Your task to perform on an android device: Open location settings Image 0: 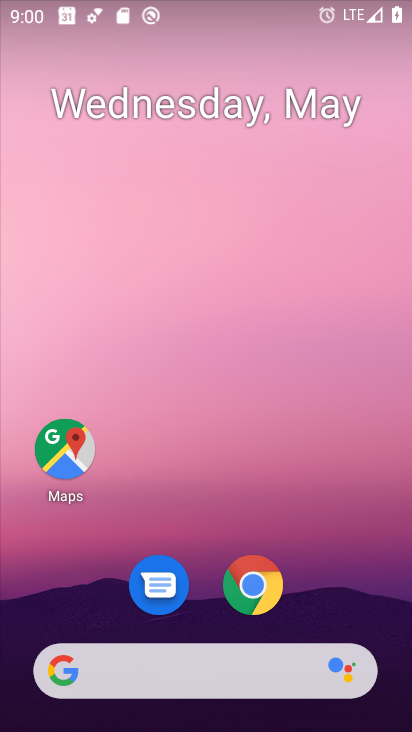
Step 0: drag from (330, 579) to (284, 145)
Your task to perform on an android device: Open location settings Image 1: 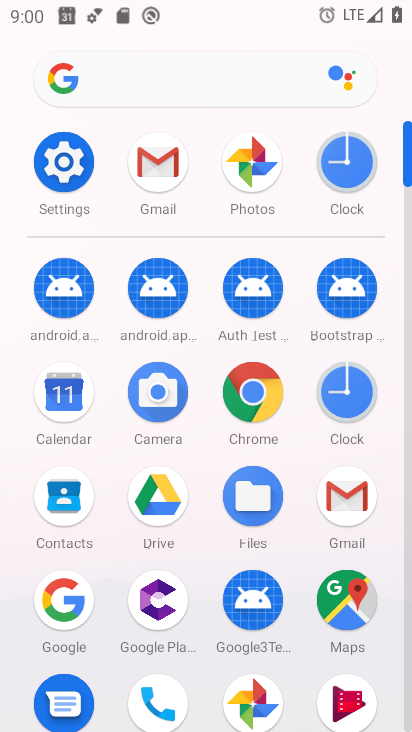
Step 1: click (64, 154)
Your task to perform on an android device: Open location settings Image 2: 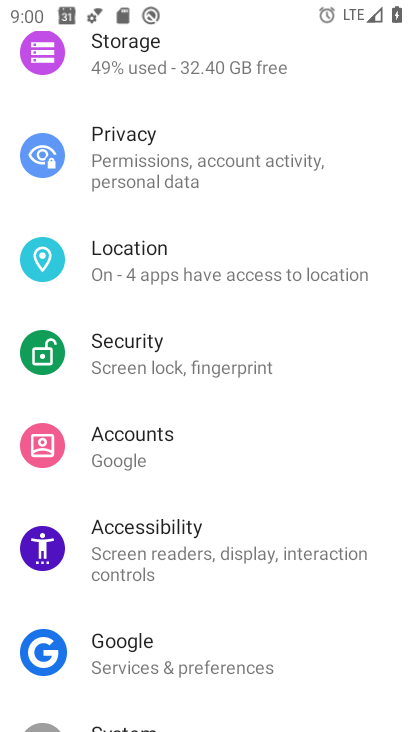
Step 2: click (155, 246)
Your task to perform on an android device: Open location settings Image 3: 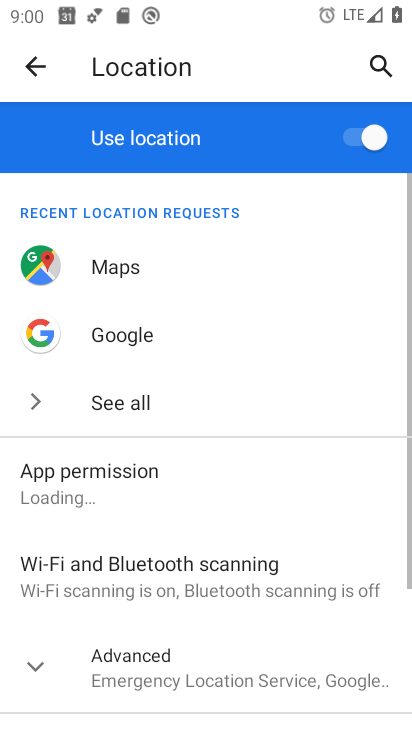
Step 3: task complete